Your task to perform on an android device: search for starred emails in the gmail app Image 0: 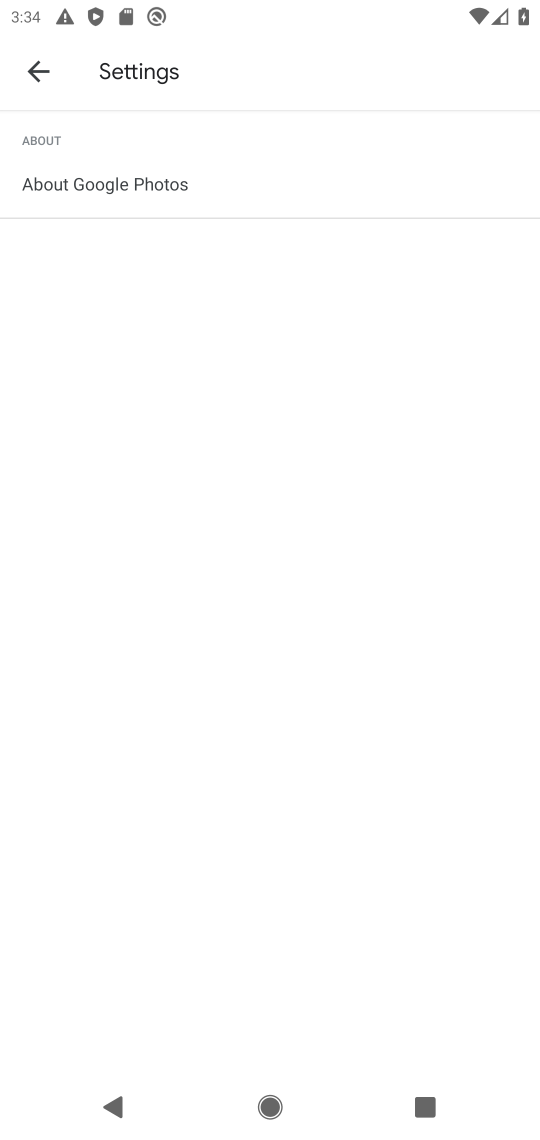
Step 0: press home button
Your task to perform on an android device: search for starred emails in the gmail app Image 1: 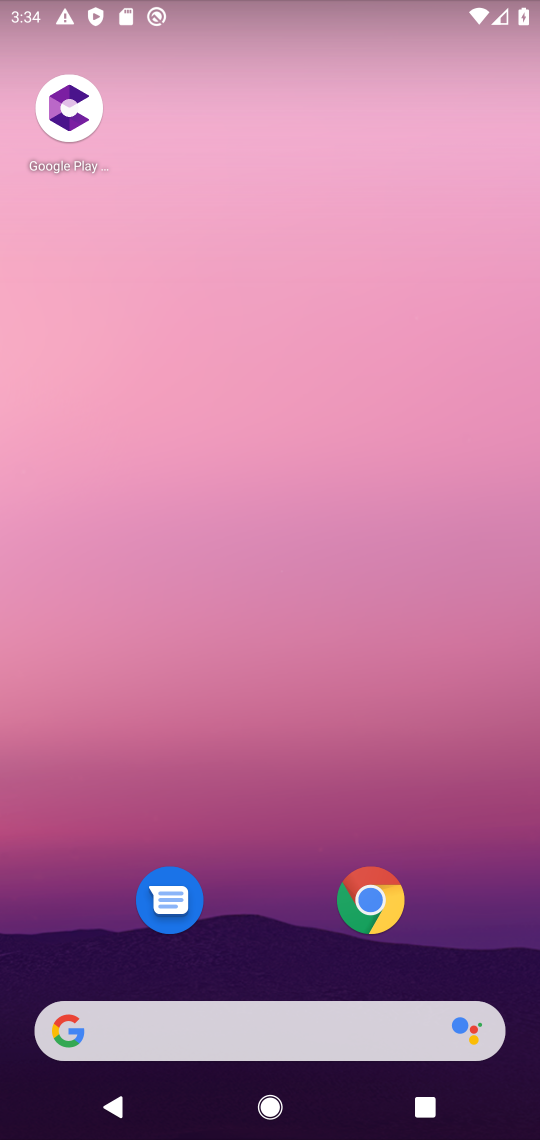
Step 1: drag from (242, 775) to (266, 7)
Your task to perform on an android device: search for starred emails in the gmail app Image 2: 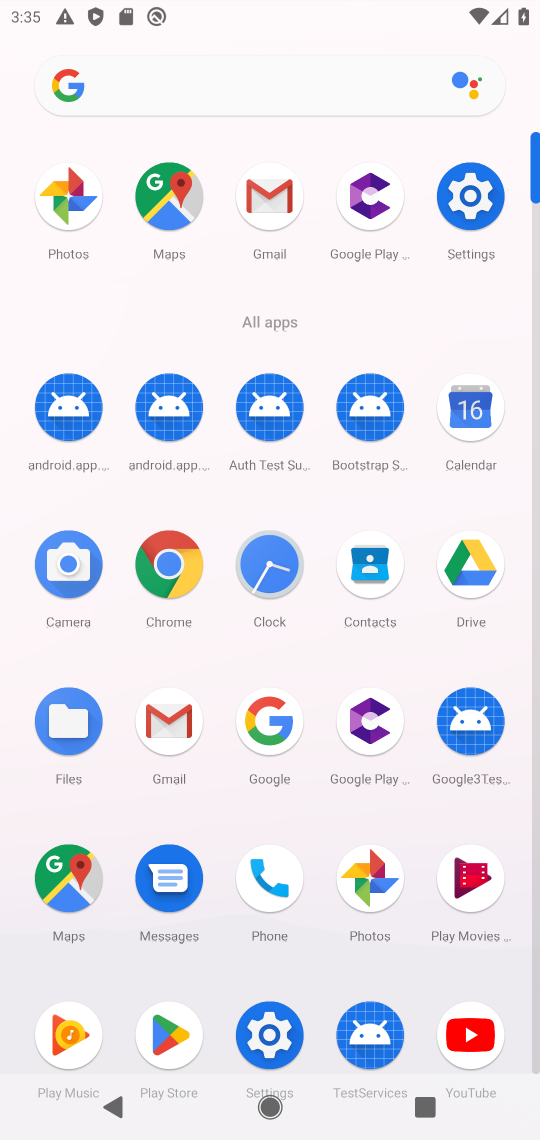
Step 2: click (178, 745)
Your task to perform on an android device: search for starred emails in the gmail app Image 3: 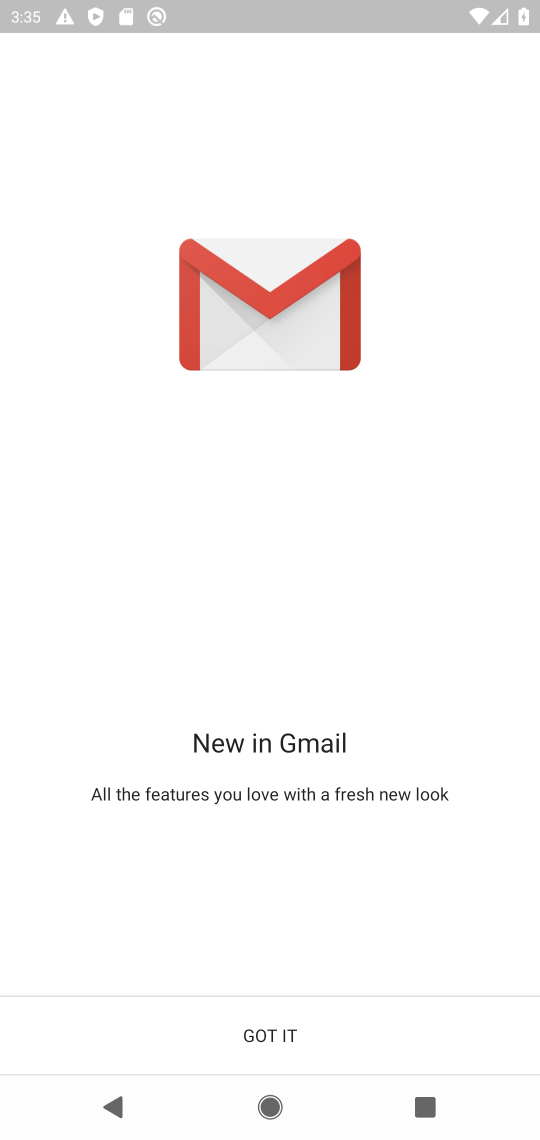
Step 3: click (332, 1022)
Your task to perform on an android device: search for starred emails in the gmail app Image 4: 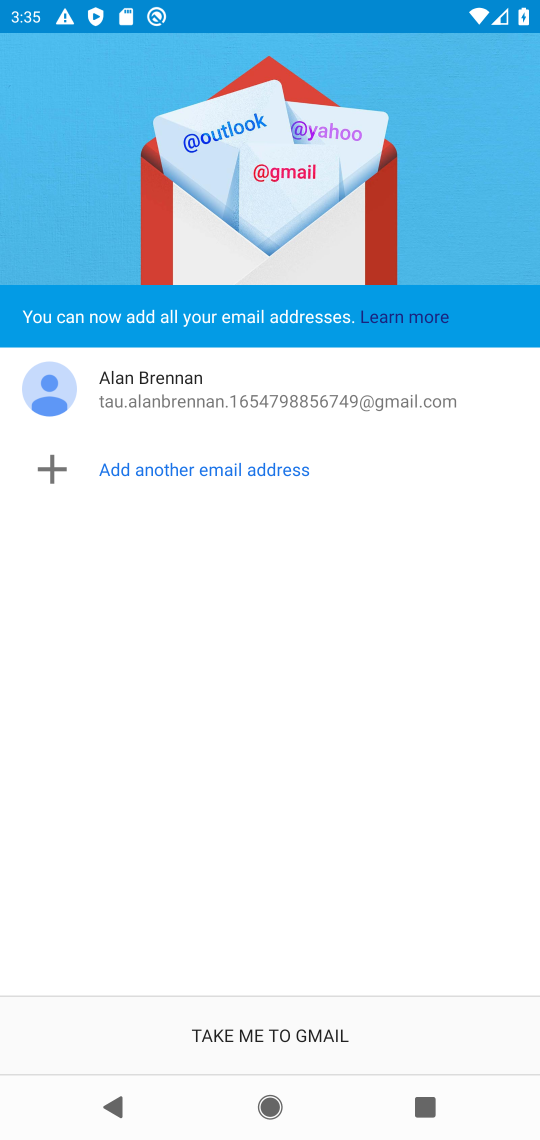
Step 4: click (339, 1025)
Your task to perform on an android device: search for starred emails in the gmail app Image 5: 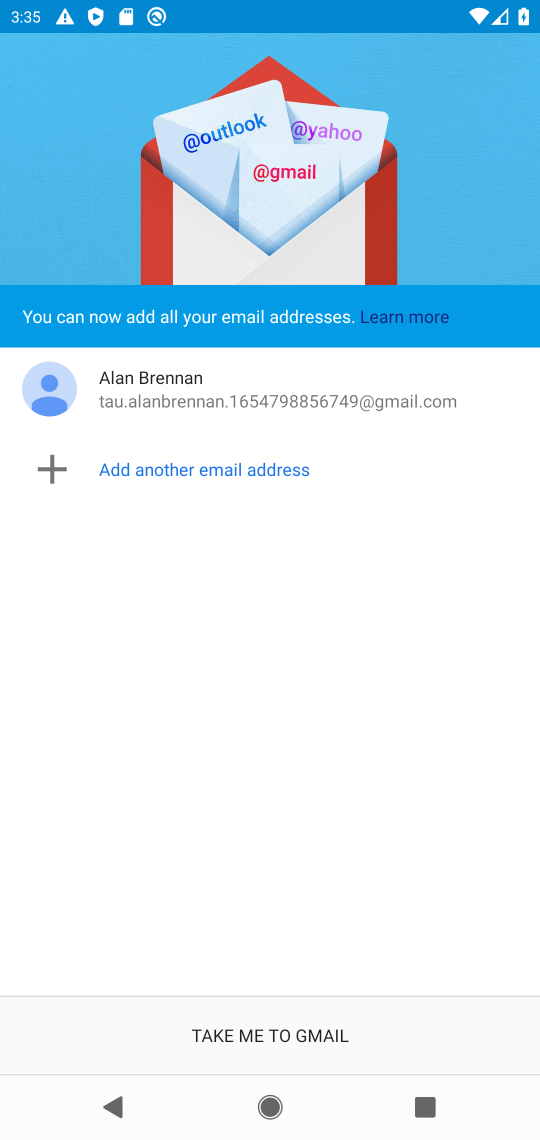
Step 5: click (337, 1028)
Your task to perform on an android device: search for starred emails in the gmail app Image 6: 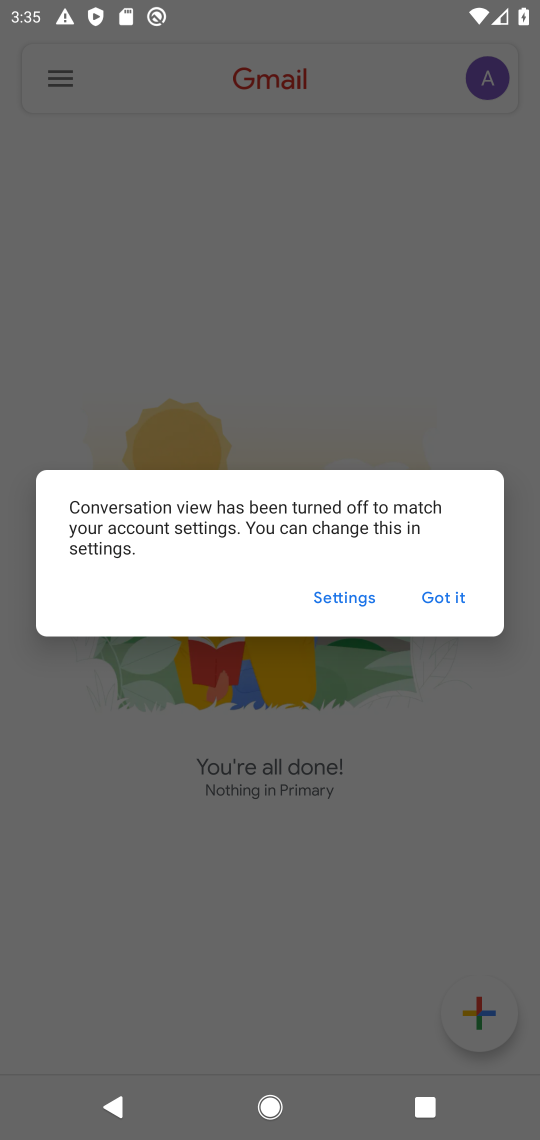
Step 6: click (450, 594)
Your task to perform on an android device: search for starred emails in the gmail app Image 7: 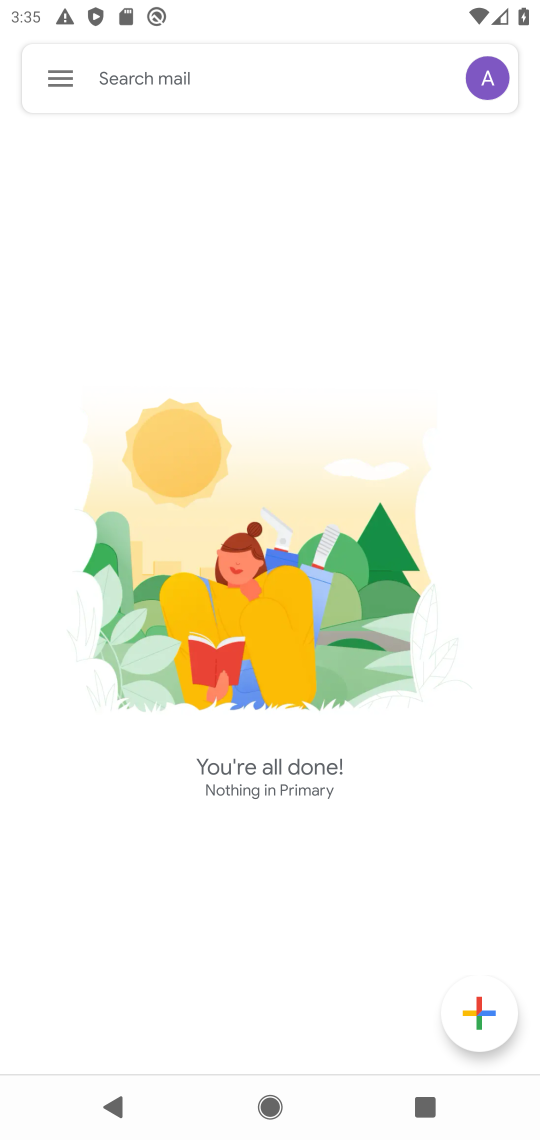
Step 7: click (435, 605)
Your task to perform on an android device: search for starred emails in the gmail app Image 8: 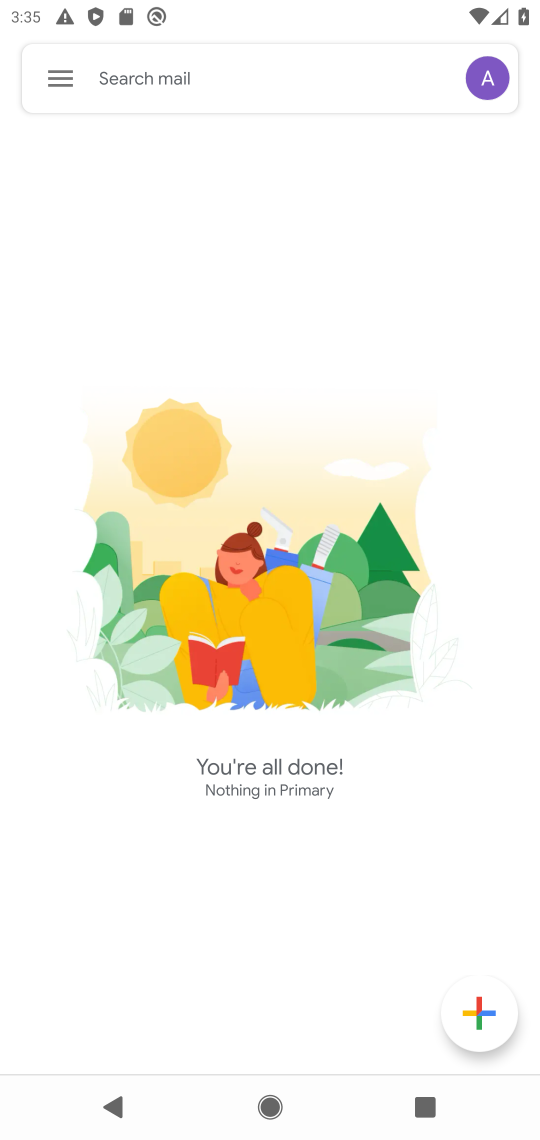
Step 8: click (51, 71)
Your task to perform on an android device: search for starred emails in the gmail app Image 9: 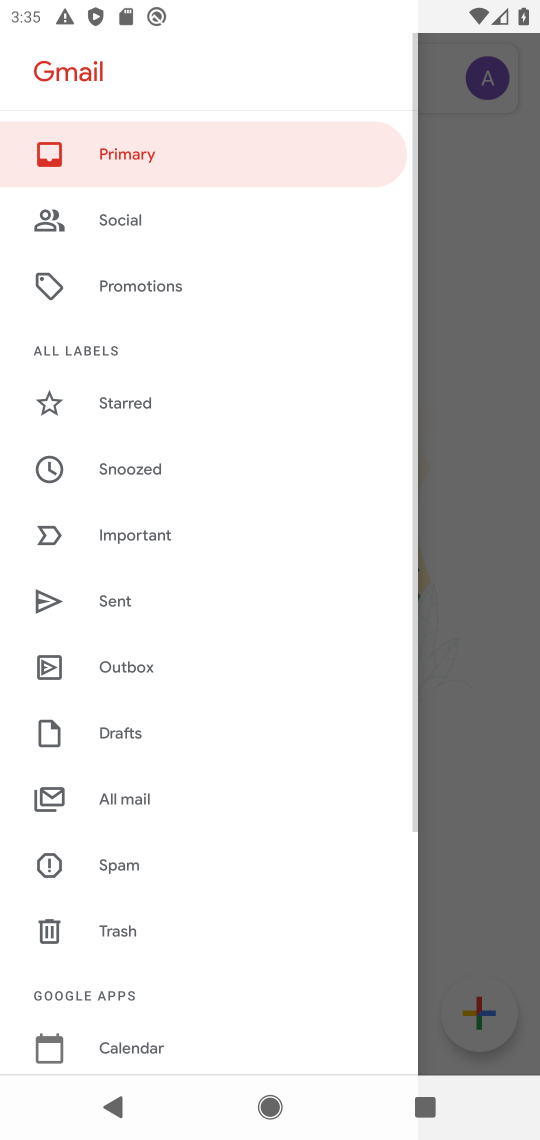
Step 9: click (52, 73)
Your task to perform on an android device: search for starred emails in the gmail app Image 10: 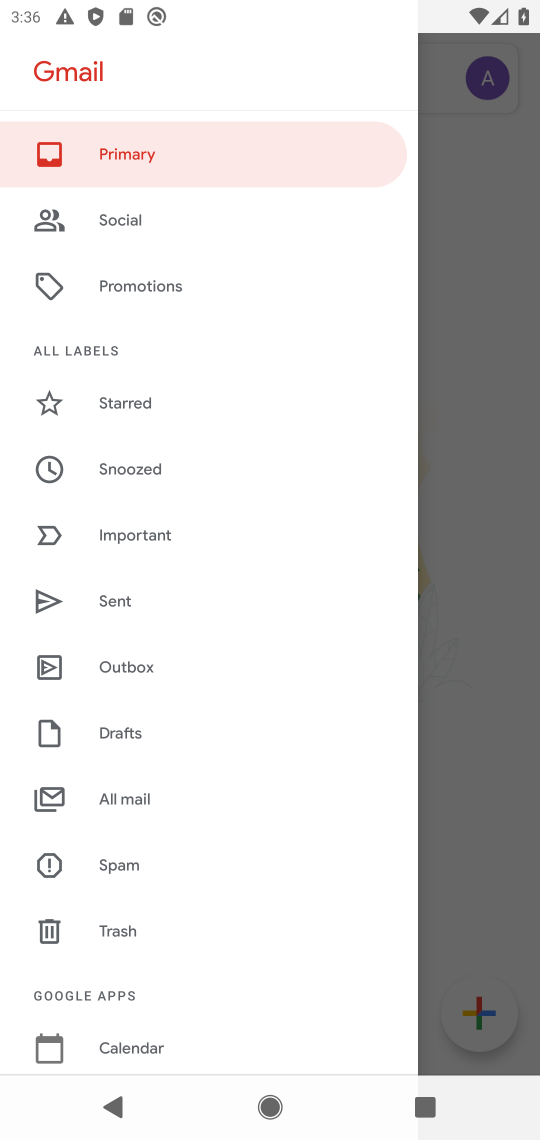
Step 10: click (55, 408)
Your task to perform on an android device: search for starred emails in the gmail app Image 11: 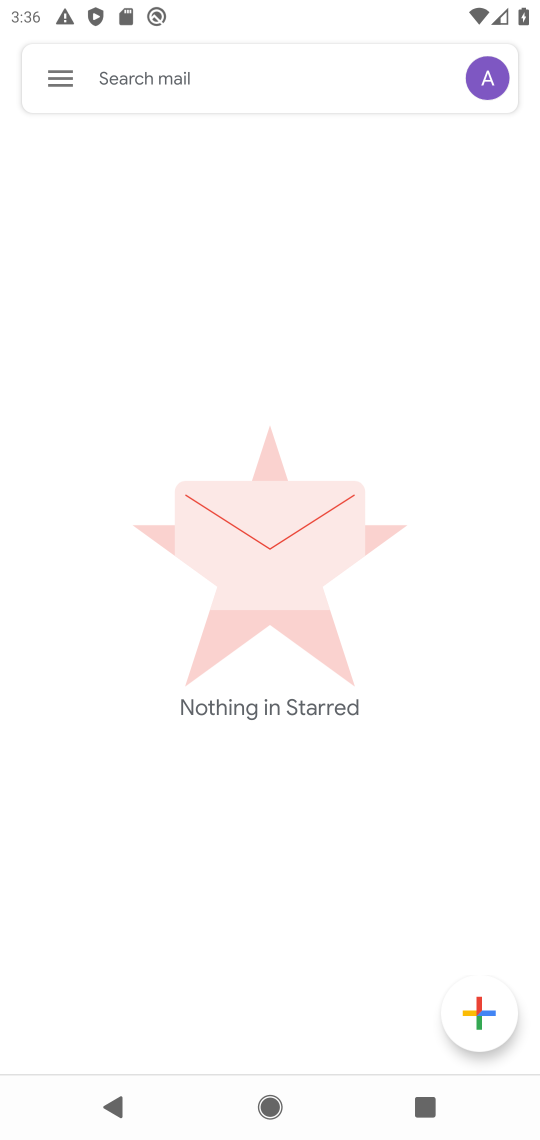
Step 11: click (148, 414)
Your task to perform on an android device: search for starred emails in the gmail app Image 12: 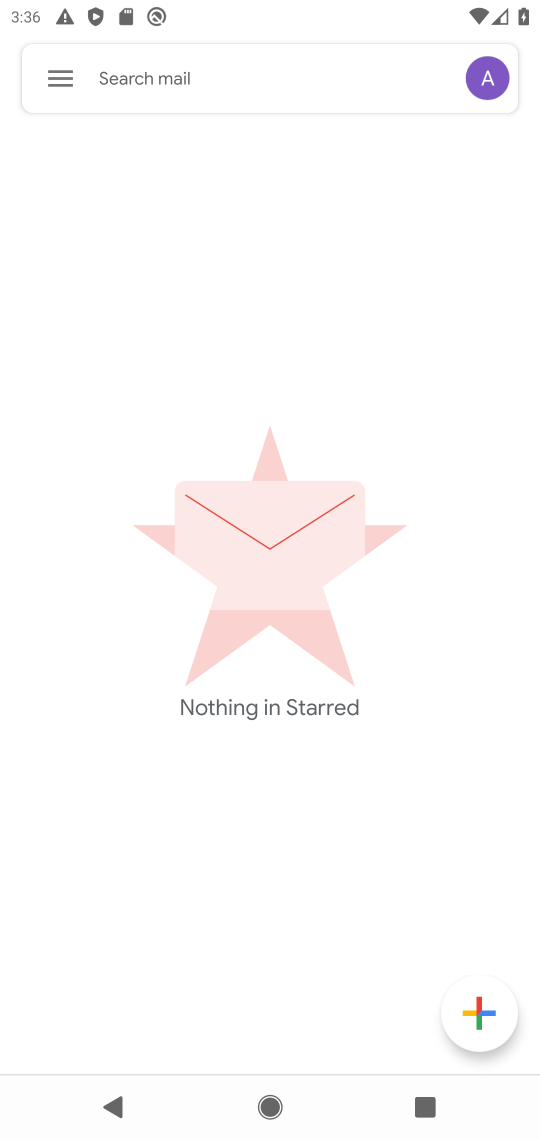
Step 12: task complete